Your task to perform on an android device: find which apps use the phone's location Image 0: 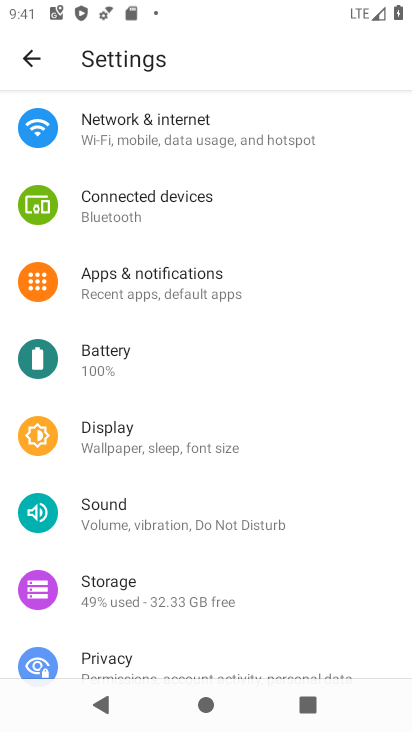
Step 0: press home button
Your task to perform on an android device: find which apps use the phone's location Image 1: 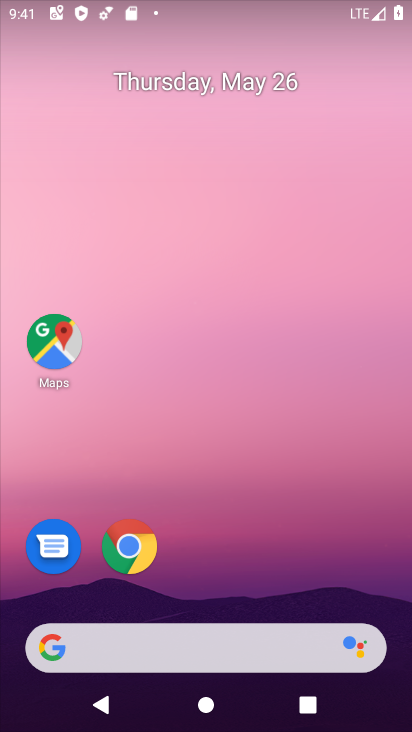
Step 1: drag from (364, 565) to (352, 180)
Your task to perform on an android device: find which apps use the phone's location Image 2: 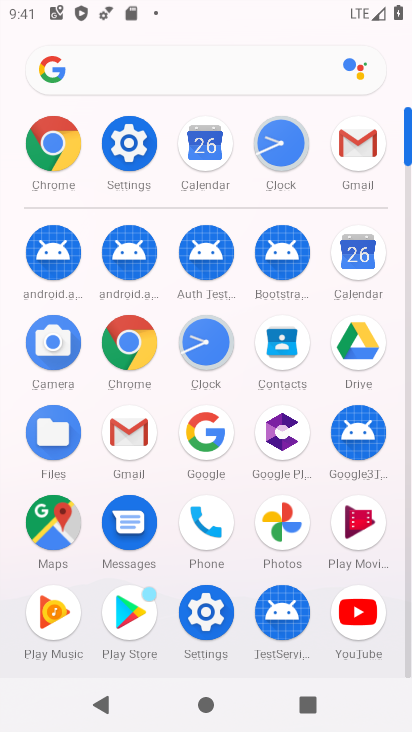
Step 2: click (213, 636)
Your task to perform on an android device: find which apps use the phone's location Image 3: 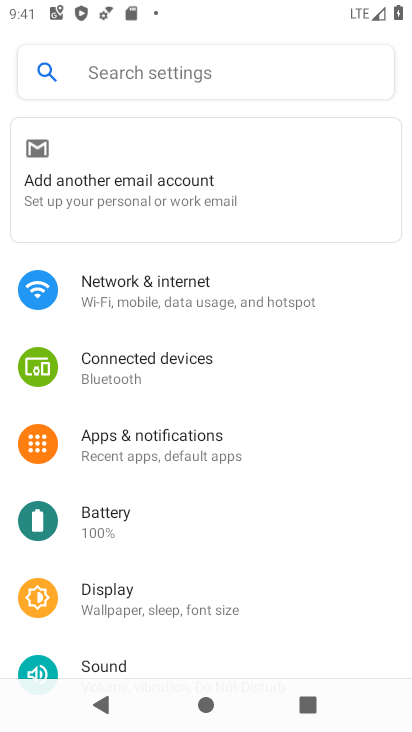
Step 3: drag from (239, 600) to (278, 298)
Your task to perform on an android device: find which apps use the phone's location Image 4: 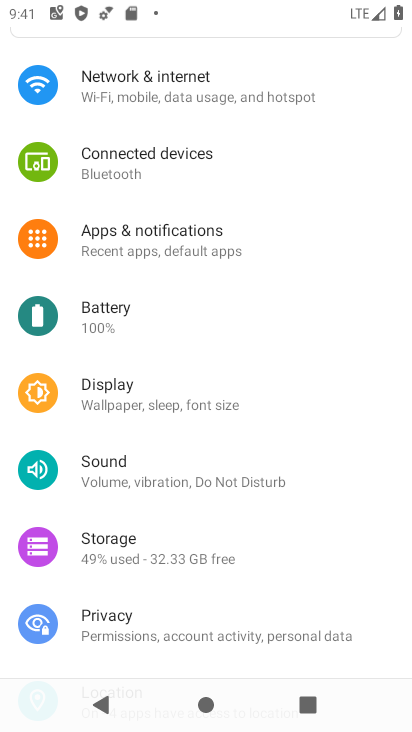
Step 4: drag from (227, 574) to (275, 306)
Your task to perform on an android device: find which apps use the phone's location Image 5: 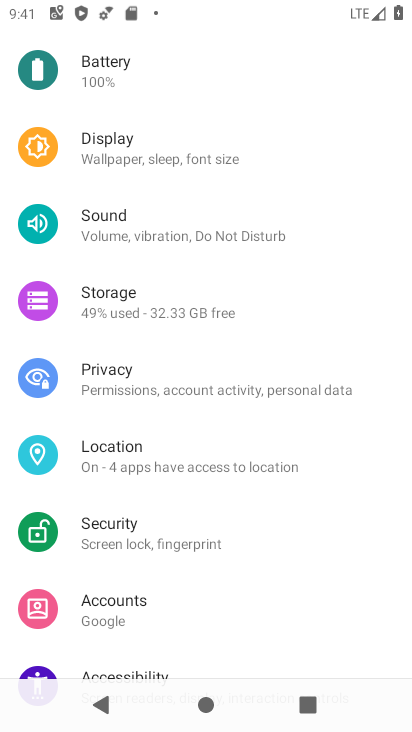
Step 5: click (174, 463)
Your task to perform on an android device: find which apps use the phone's location Image 6: 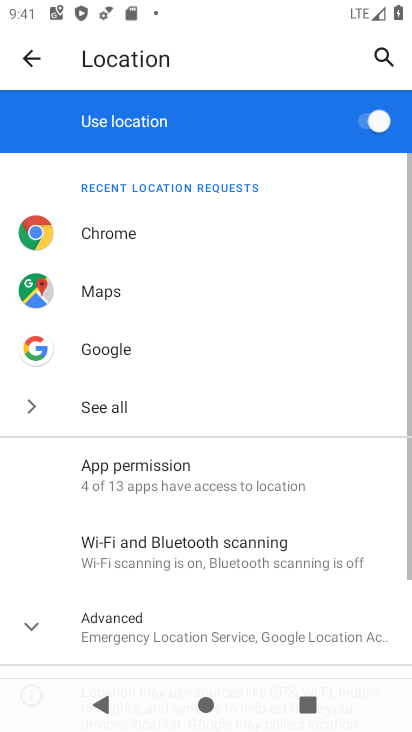
Step 6: click (116, 410)
Your task to perform on an android device: find which apps use the phone's location Image 7: 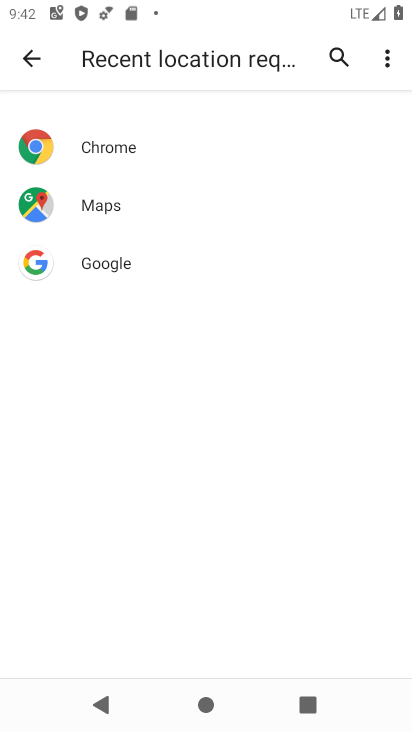
Step 7: task complete